Your task to perform on an android device: Go to Amazon Image 0: 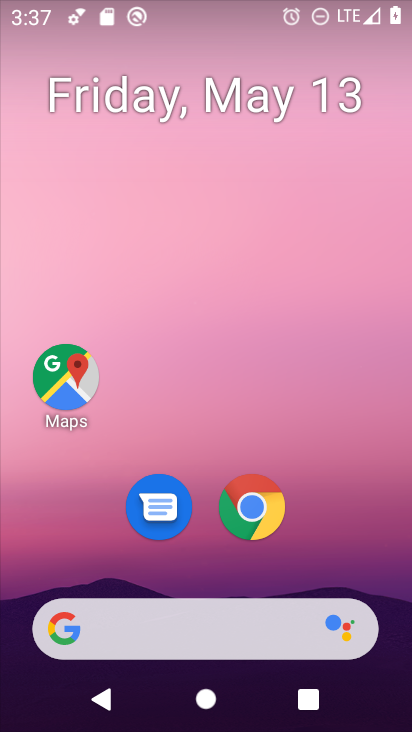
Step 0: drag from (334, 528) to (244, 148)
Your task to perform on an android device: Go to Amazon Image 1: 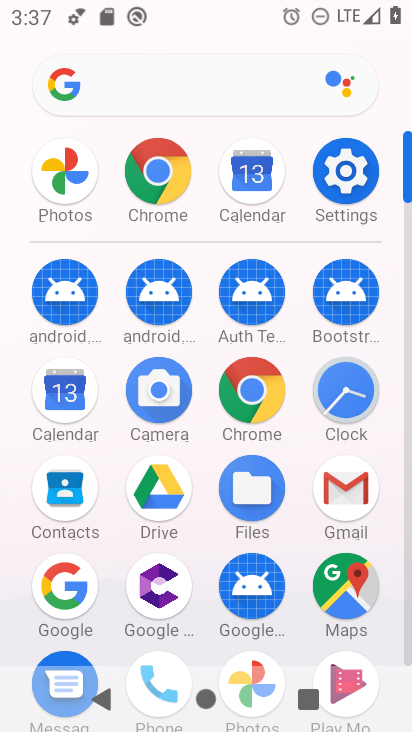
Step 1: click (168, 196)
Your task to perform on an android device: Go to Amazon Image 2: 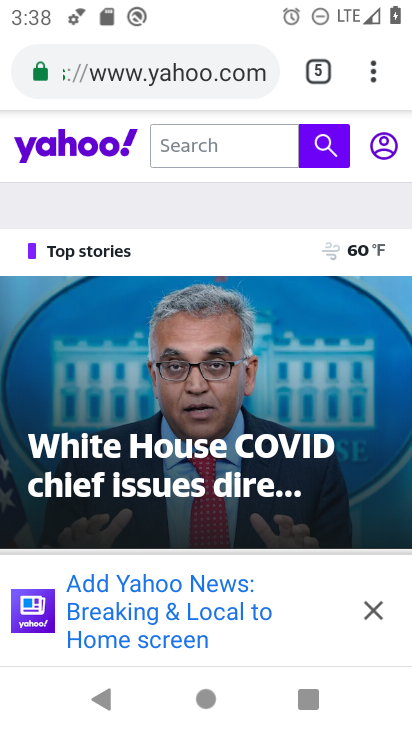
Step 2: click (233, 68)
Your task to perform on an android device: Go to Amazon Image 3: 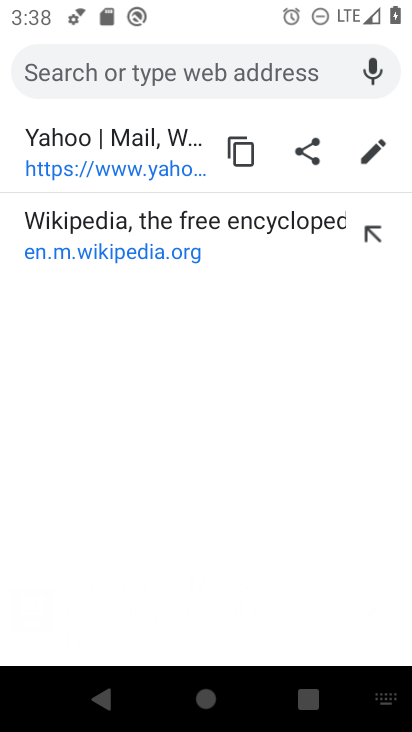
Step 3: press back button
Your task to perform on an android device: Go to Amazon Image 4: 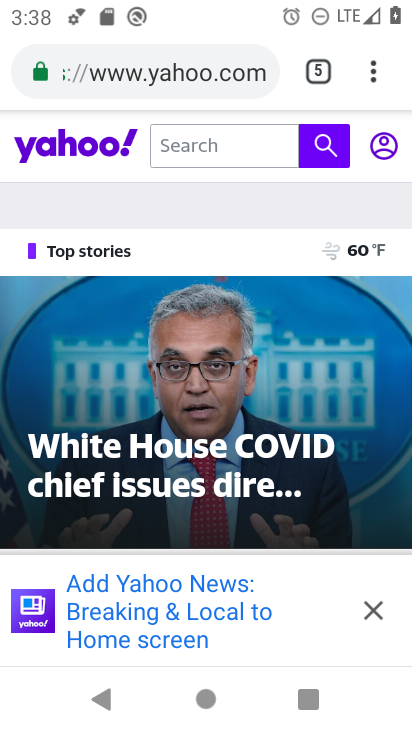
Step 4: click (311, 66)
Your task to perform on an android device: Go to Amazon Image 5: 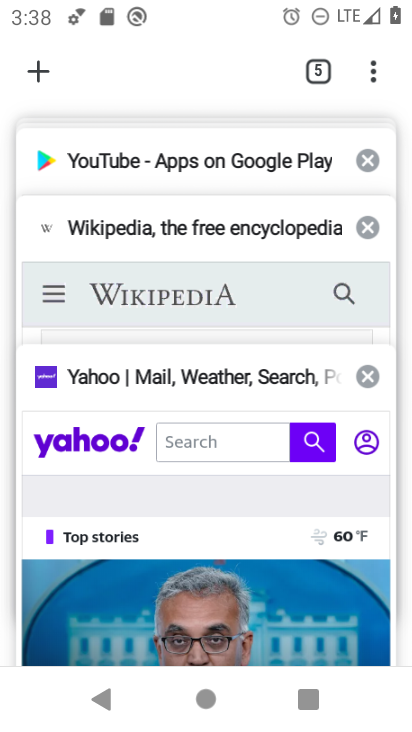
Step 5: drag from (209, 168) to (263, 426)
Your task to perform on an android device: Go to Amazon Image 6: 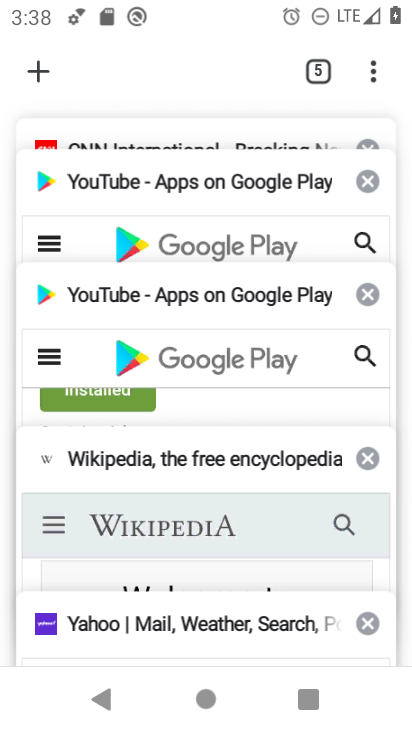
Step 6: drag from (243, 228) to (257, 520)
Your task to perform on an android device: Go to Amazon Image 7: 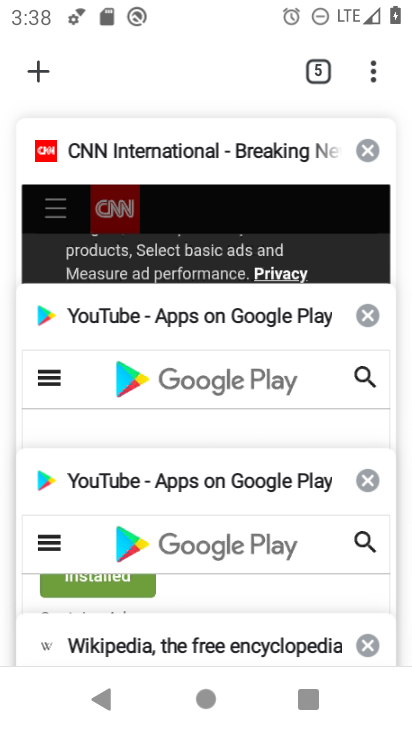
Step 7: drag from (234, 189) to (251, 513)
Your task to perform on an android device: Go to Amazon Image 8: 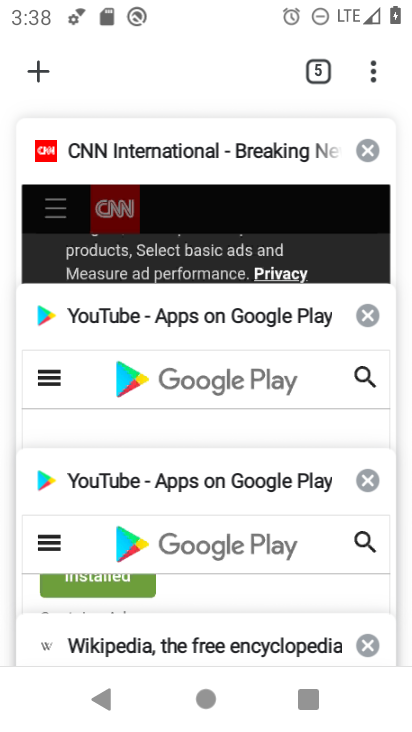
Step 8: click (39, 72)
Your task to perform on an android device: Go to Amazon Image 9: 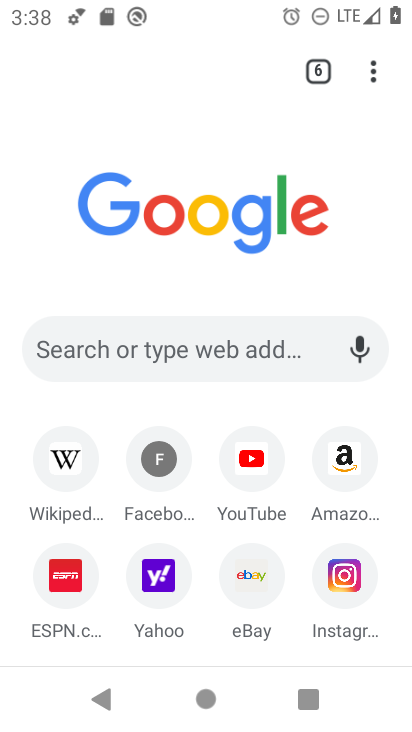
Step 9: click (349, 465)
Your task to perform on an android device: Go to Amazon Image 10: 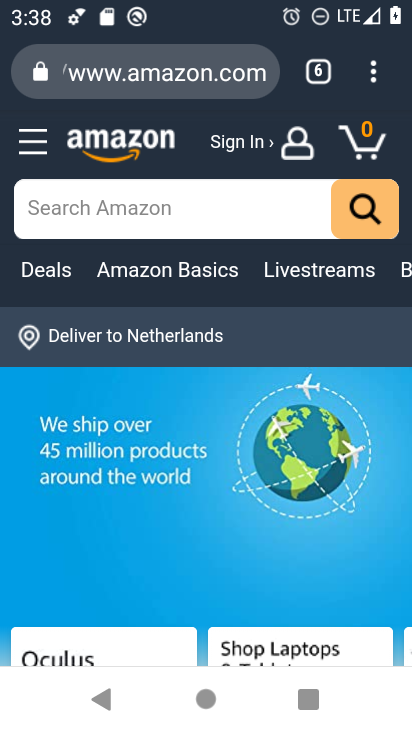
Step 10: task complete